Your task to perform on an android device: turn off airplane mode Image 0: 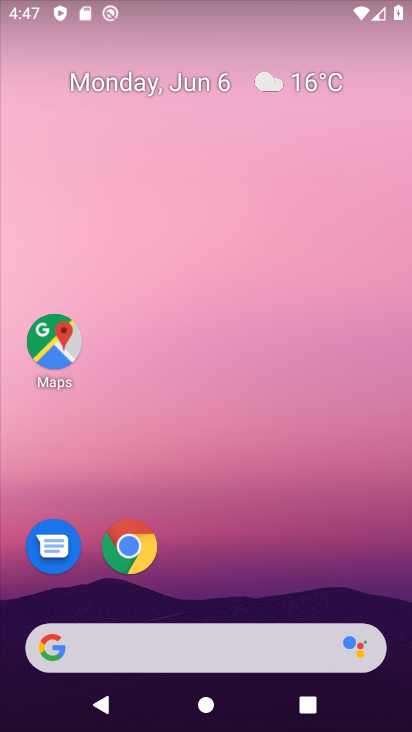
Step 0: click (222, 214)
Your task to perform on an android device: turn off airplane mode Image 1: 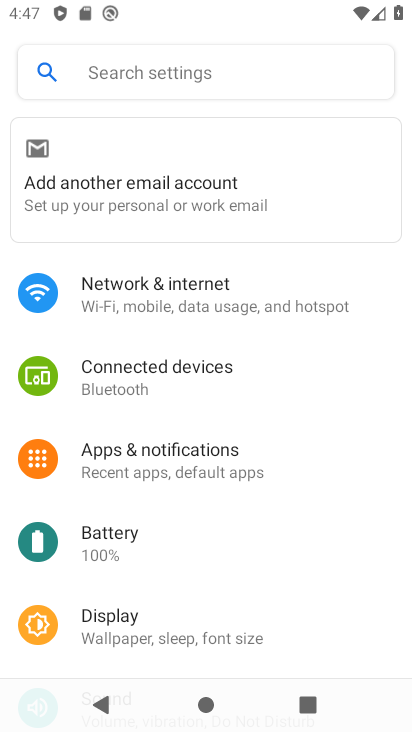
Step 1: click (192, 460)
Your task to perform on an android device: turn off airplane mode Image 2: 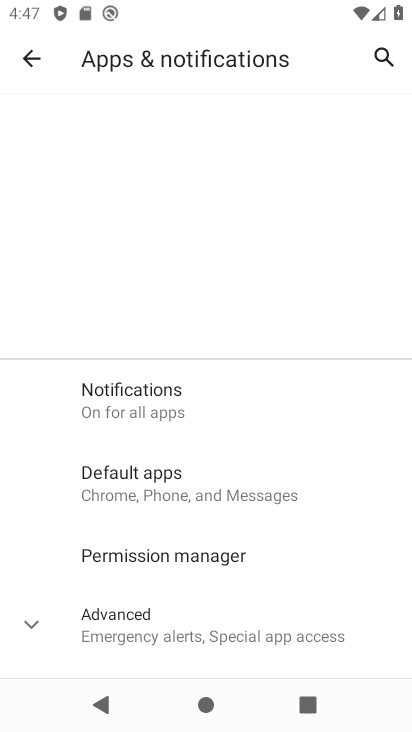
Step 2: press back button
Your task to perform on an android device: turn off airplane mode Image 3: 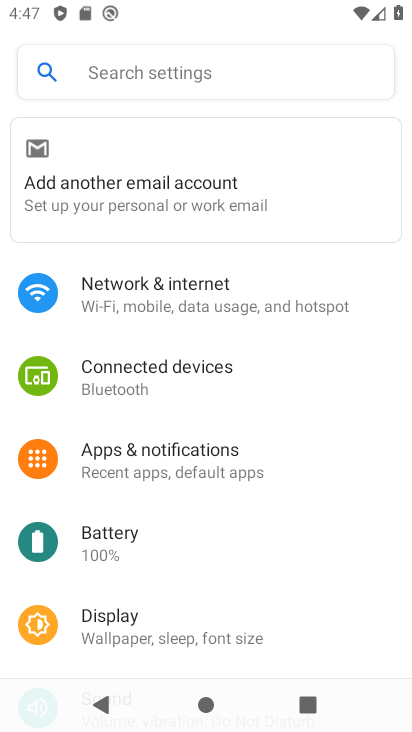
Step 3: click (125, 292)
Your task to perform on an android device: turn off airplane mode Image 4: 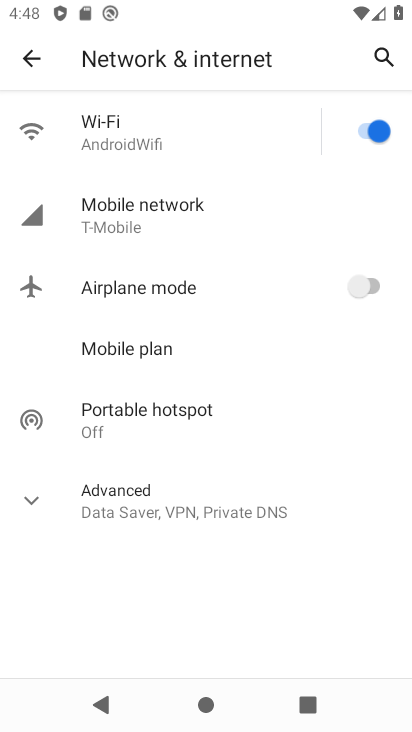
Step 4: task complete